Your task to perform on an android device: toggle data saver in the chrome app Image 0: 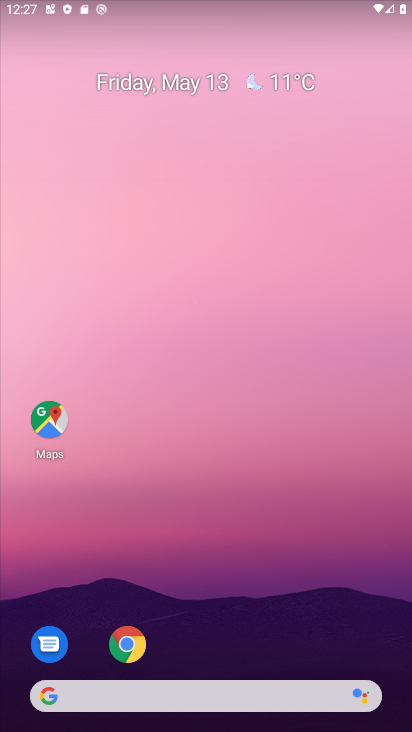
Step 0: click (127, 645)
Your task to perform on an android device: toggle data saver in the chrome app Image 1: 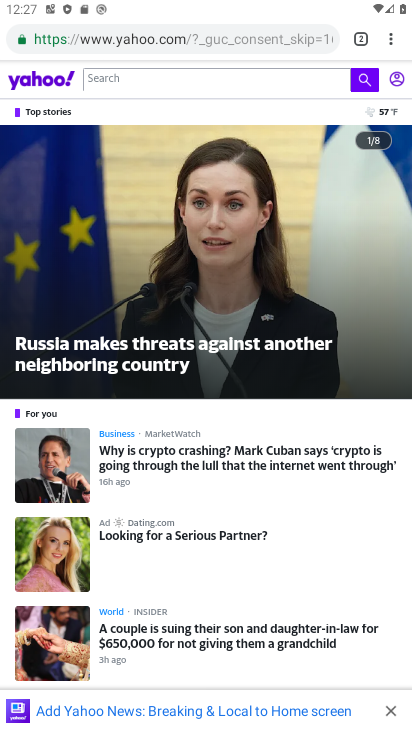
Step 1: click (392, 45)
Your task to perform on an android device: toggle data saver in the chrome app Image 2: 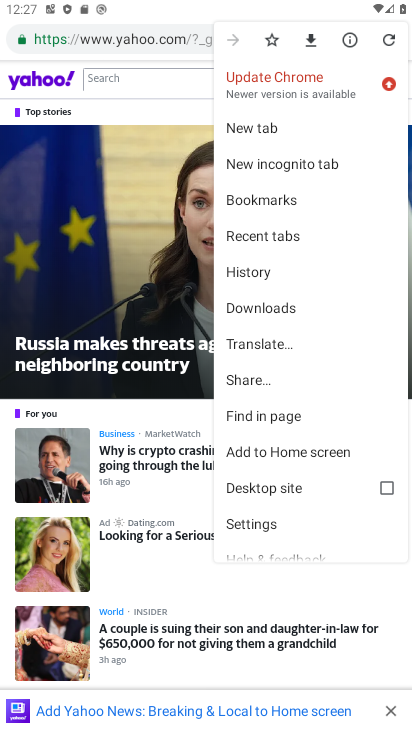
Step 2: click (253, 521)
Your task to perform on an android device: toggle data saver in the chrome app Image 3: 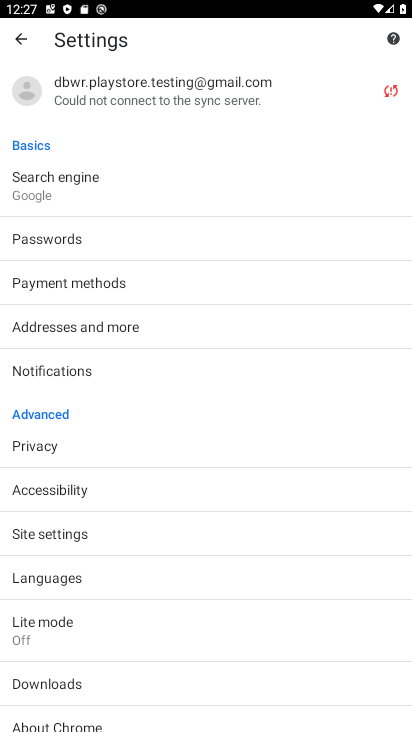
Step 3: click (59, 621)
Your task to perform on an android device: toggle data saver in the chrome app Image 4: 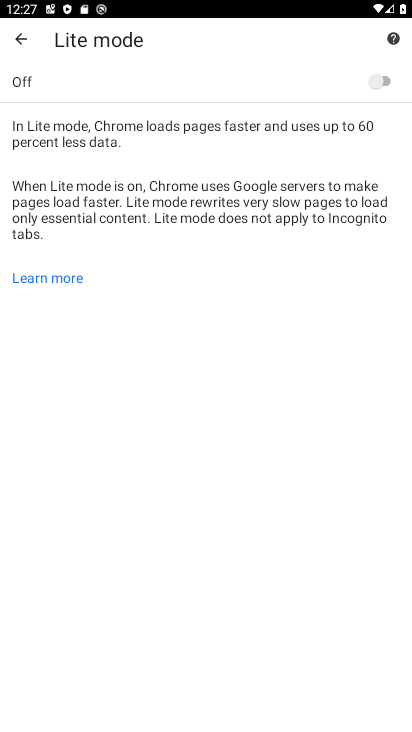
Step 4: click (386, 80)
Your task to perform on an android device: toggle data saver in the chrome app Image 5: 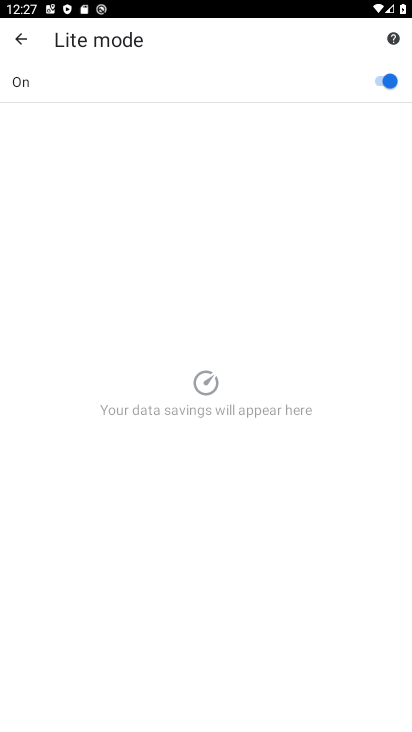
Step 5: task complete